Your task to perform on an android device: Open calendar and show me the third week of next month Image 0: 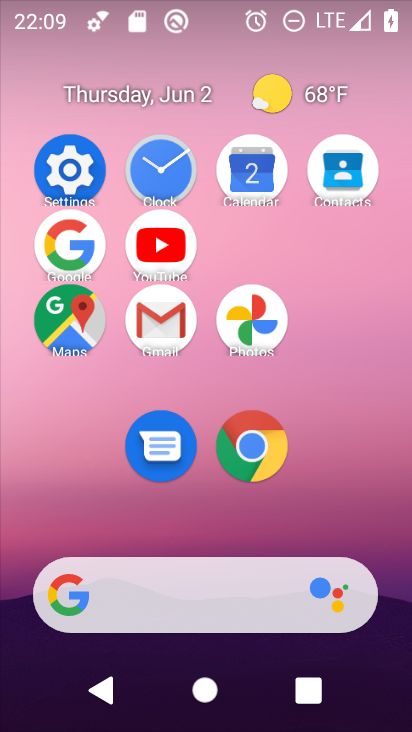
Step 0: click (268, 165)
Your task to perform on an android device: Open calendar and show me the third week of next month Image 1: 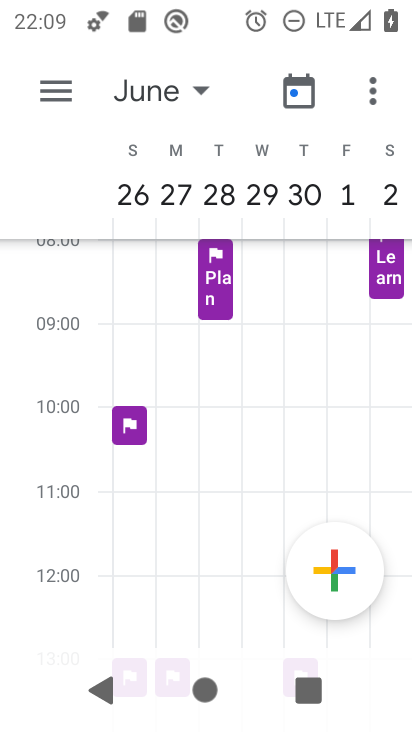
Step 1: click (149, 100)
Your task to perform on an android device: Open calendar and show me the third week of next month Image 2: 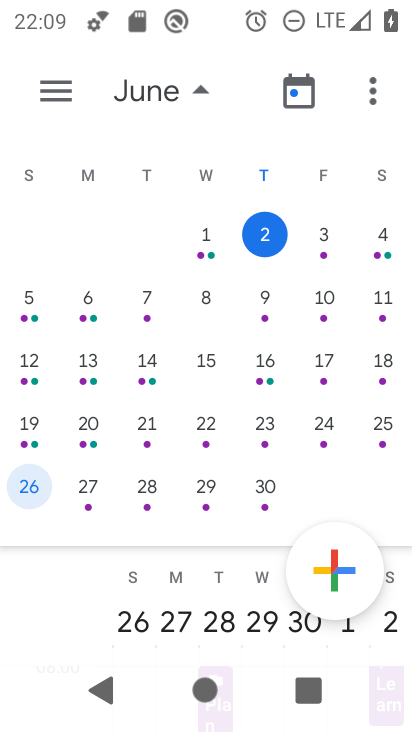
Step 2: drag from (396, 350) to (12, 332)
Your task to perform on an android device: Open calendar and show me the third week of next month Image 3: 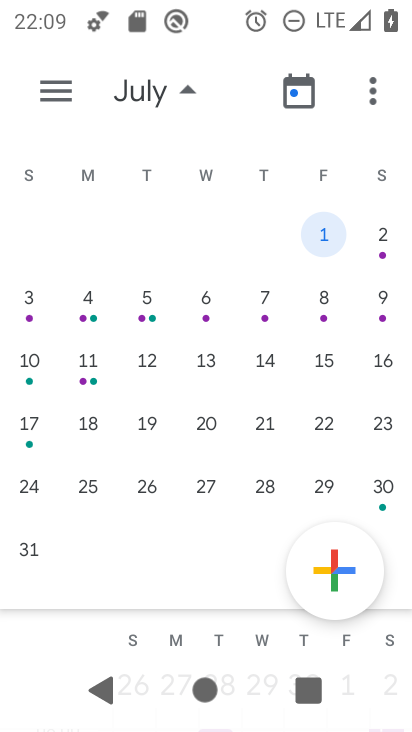
Step 3: click (83, 102)
Your task to perform on an android device: Open calendar and show me the third week of next month Image 4: 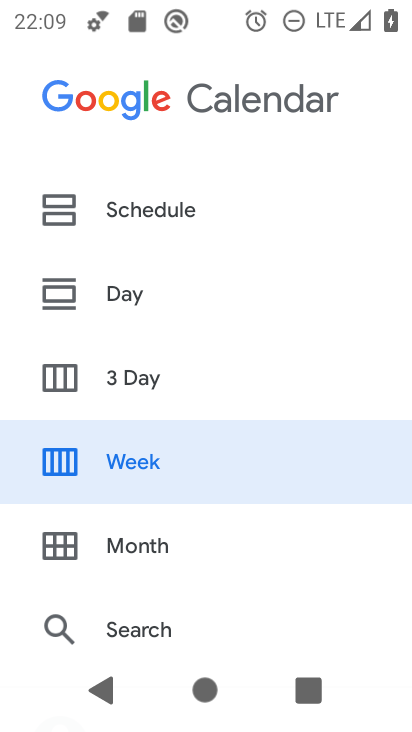
Step 4: click (182, 448)
Your task to perform on an android device: Open calendar and show me the third week of next month Image 5: 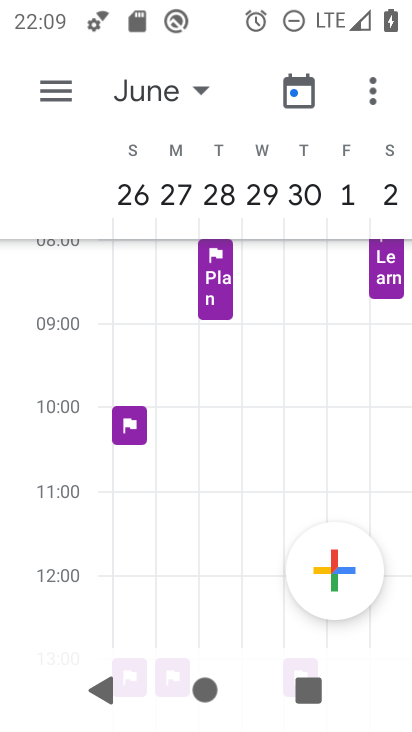
Step 5: task complete